Your task to perform on an android device: Show me popular games on the Play Store Image 0: 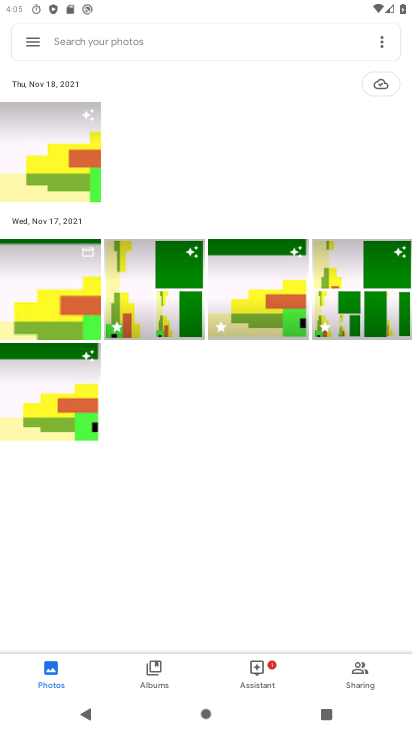
Step 0: press home button
Your task to perform on an android device: Show me popular games on the Play Store Image 1: 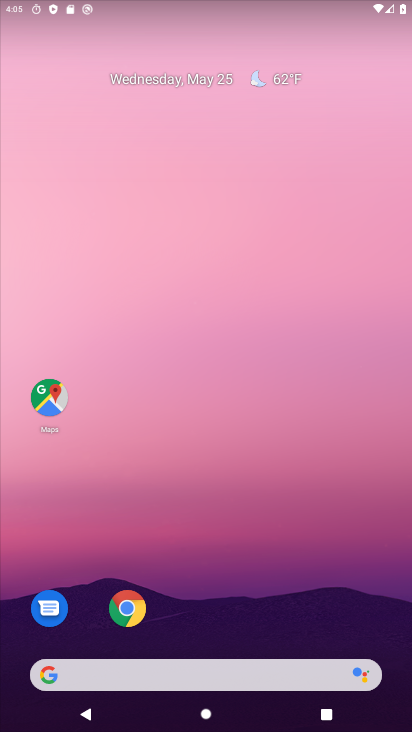
Step 1: drag from (227, 613) to (295, 65)
Your task to perform on an android device: Show me popular games on the Play Store Image 2: 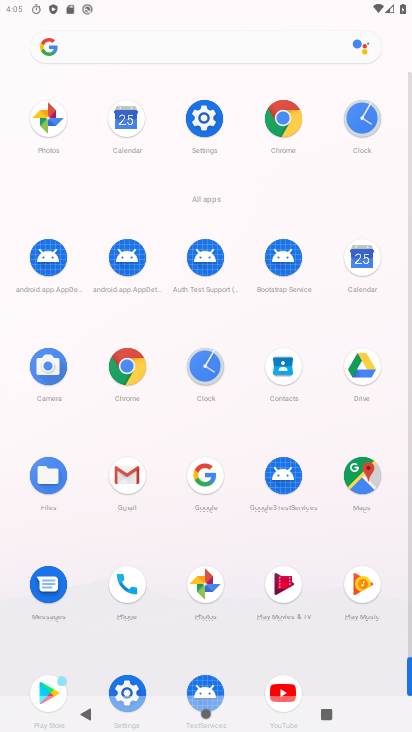
Step 2: drag from (158, 586) to (176, 338)
Your task to perform on an android device: Show me popular games on the Play Store Image 3: 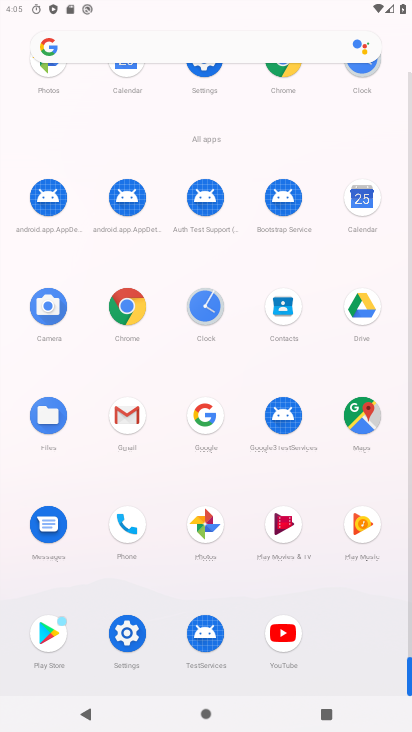
Step 3: click (47, 629)
Your task to perform on an android device: Show me popular games on the Play Store Image 4: 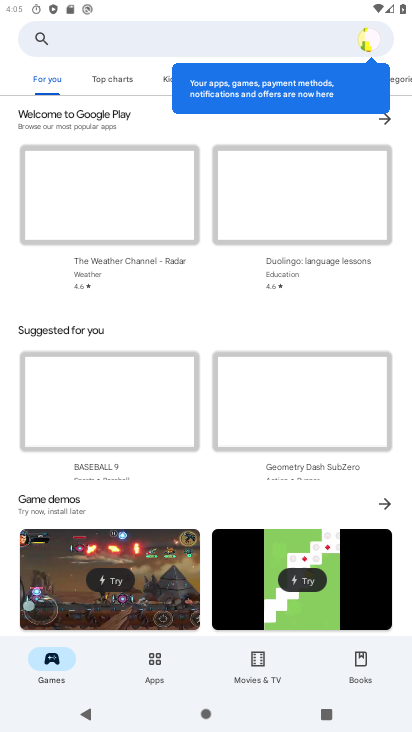
Step 4: click (117, 36)
Your task to perform on an android device: Show me popular games on the Play Store Image 5: 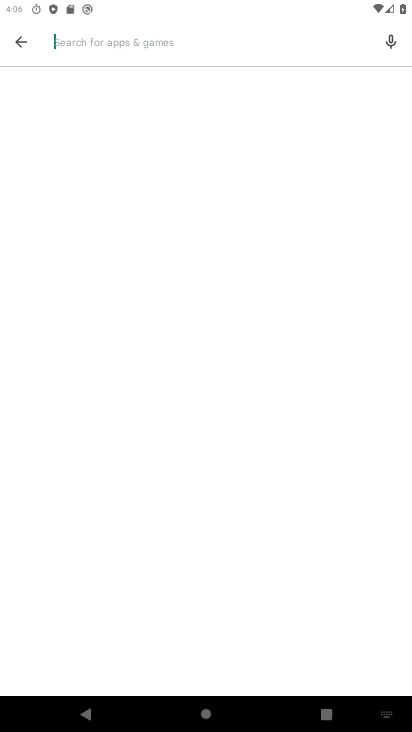
Step 5: type "popular games"
Your task to perform on an android device: Show me popular games on the Play Store Image 6: 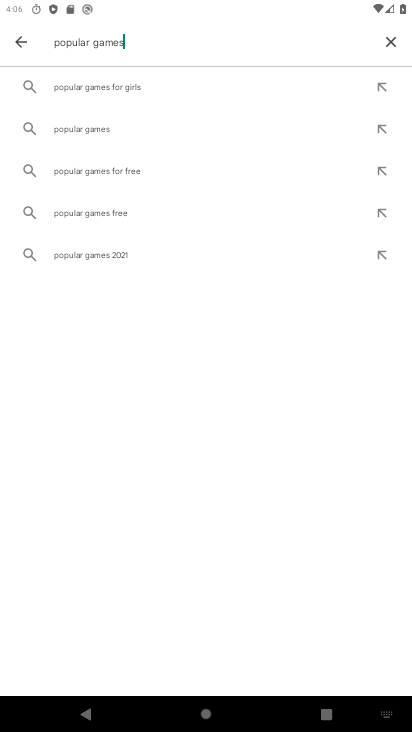
Step 6: click (106, 127)
Your task to perform on an android device: Show me popular games on the Play Store Image 7: 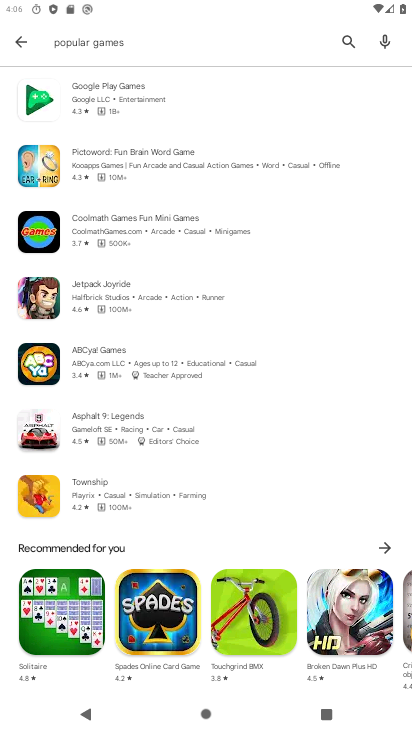
Step 7: task complete